Your task to perform on an android device: Open Google Chrome Image 0: 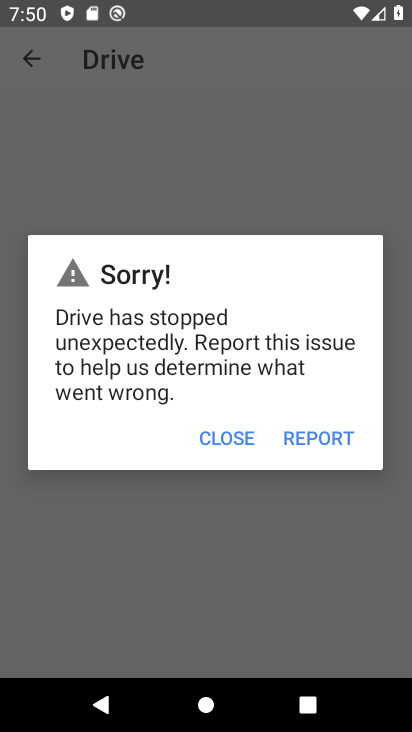
Step 0: press home button
Your task to perform on an android device: Open Google Chrome Image 1: 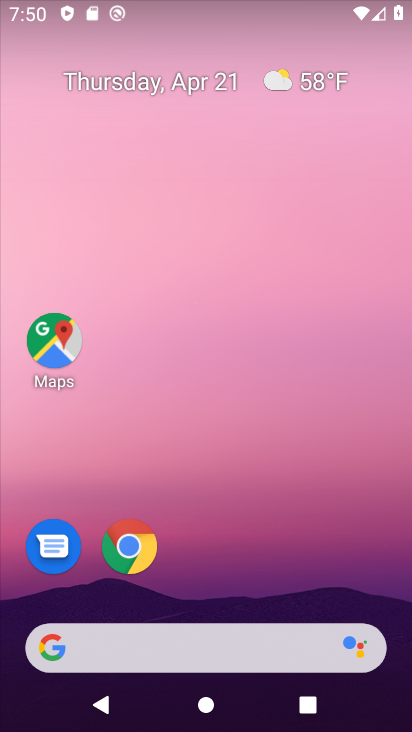
Step 1: drag from (256, 538) to (254, 55)
Your task to perform on an android device: Open Google Chrome Image 2: 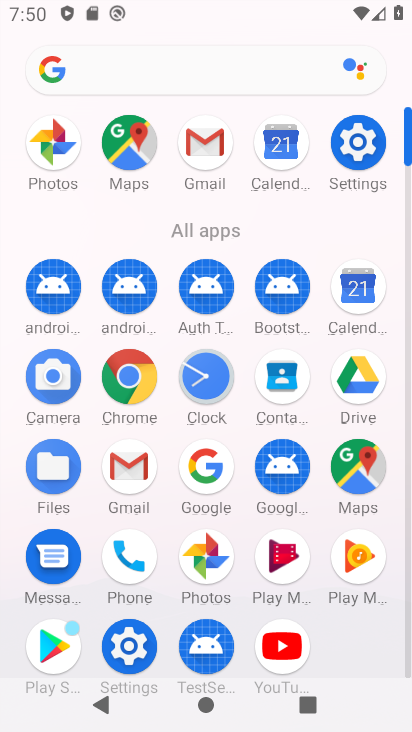
Step 2: click (150, 383)
Your task to perform on an android device: Open Google Chrome Image 3: 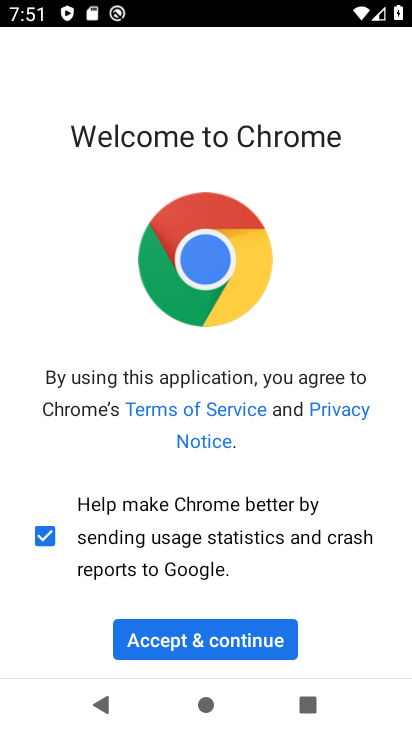
Step 3: click (208, 646)
Your task to perform on an android device: Open Google Chrome Image 4: 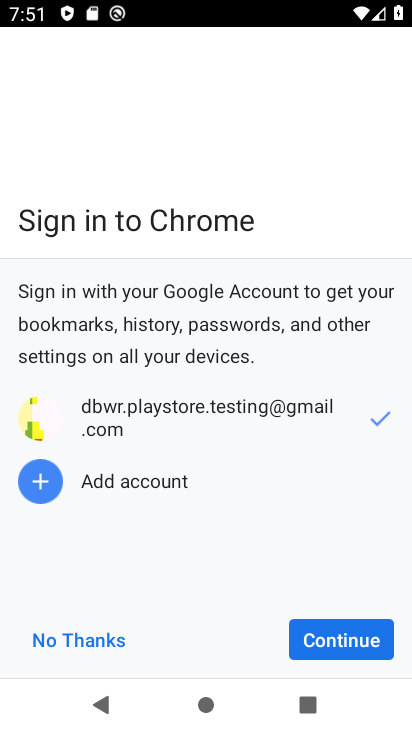
Step 4: click (81, 637)
Your task to perform on an android device: Open Google Chrome Image 5: 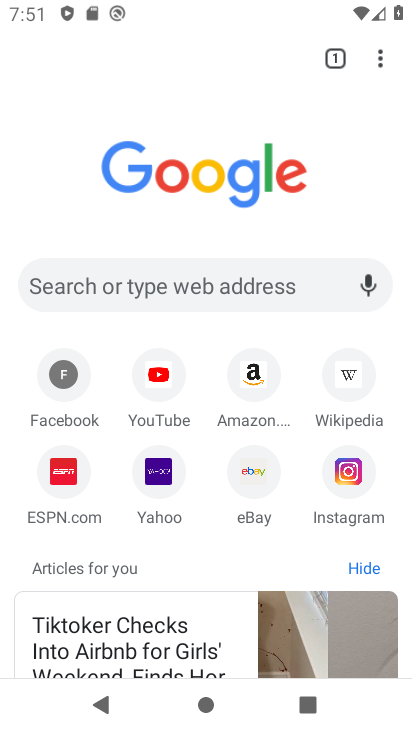
Step 5: task complete